Your task to perform on an android device: toggle location history Image 0: 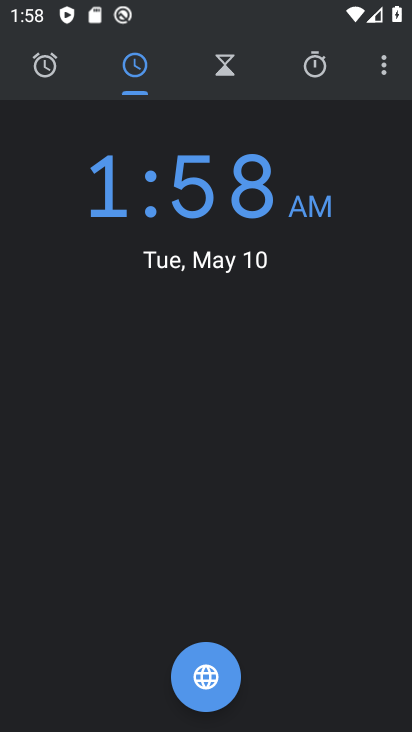
Step 0: press home button
Your task to perform on an android device: toggle location history Image 1: 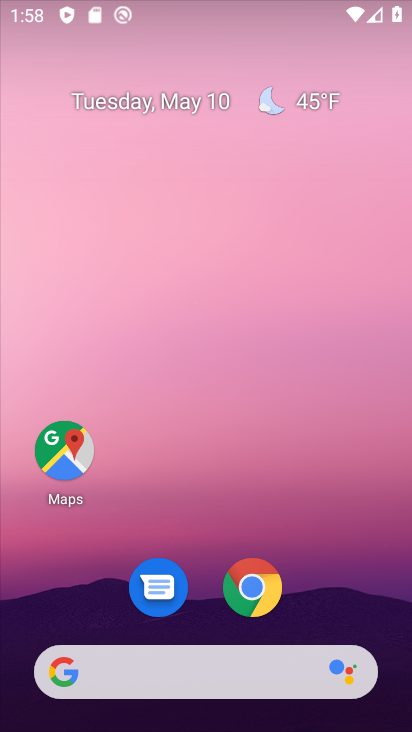
Step 1: drag from (304, 578) to (305, 206)
Your task to perform on an android device: toggle location history Image 2: 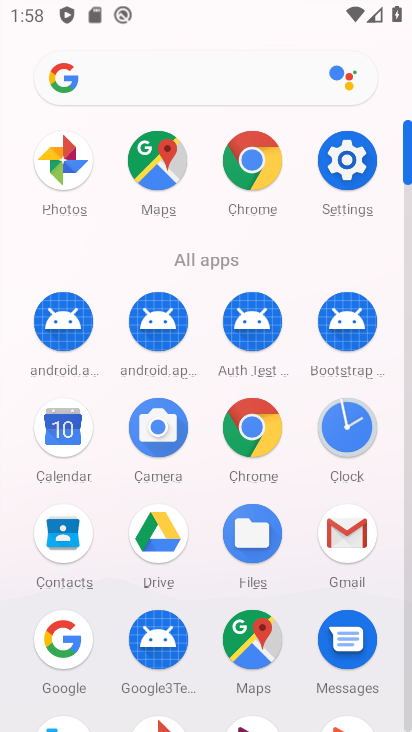
Step 2: click (345, 173)
Your task to perform on an android device: toggle location history Image 3: 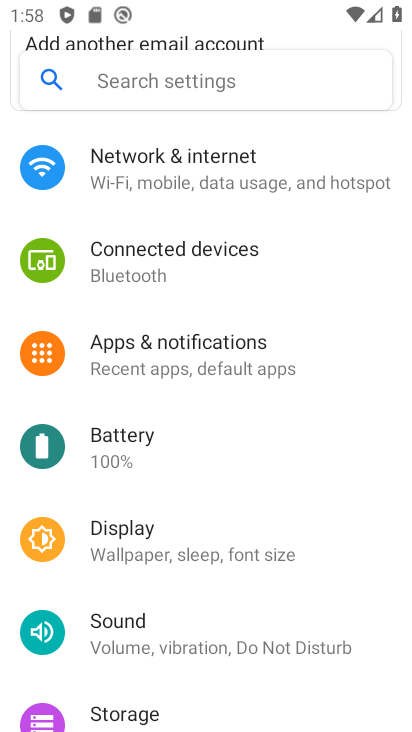
Step 3: drag from (224, 598) to (257, 267)
Your task to perform on an android device: toggle location history Image 4: 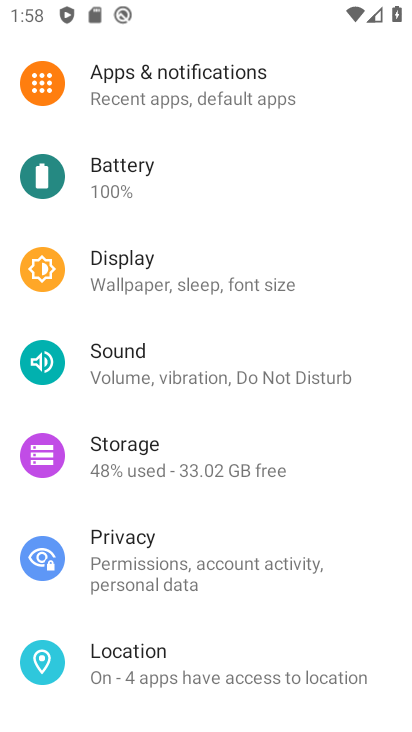
Step 4: click (165, 653)
Your task to perform on an android device: toggle location history Image 5: 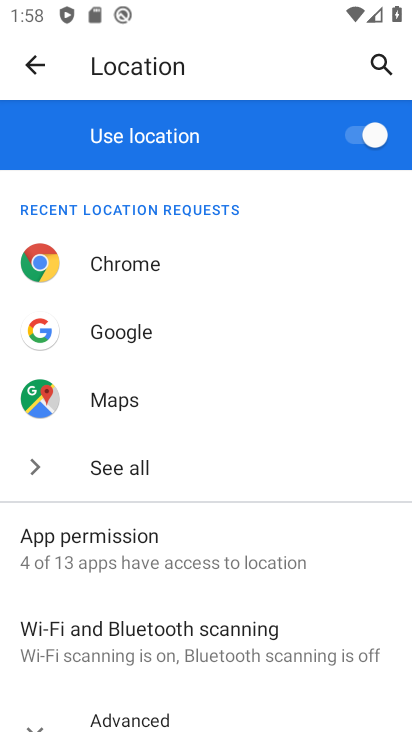
Step 5: drag from (229, 649) to (250, 327)
Your task to perform on an android device: toggle location history Image 6: 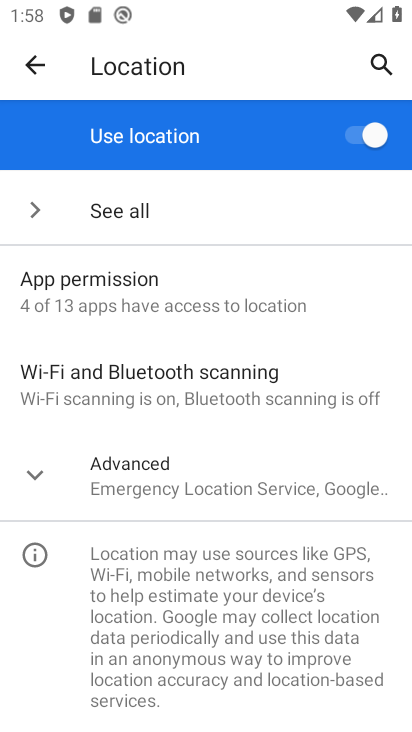
Step 6: click (198, 475)
Your task to perform on an android device: toggle location history Image 7: 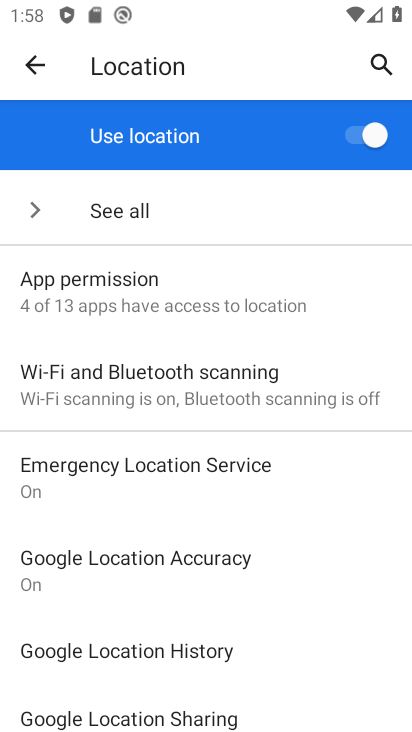
Step 7: click (148, 646)
Your task to perform on an android device: toggle location history Image 8: 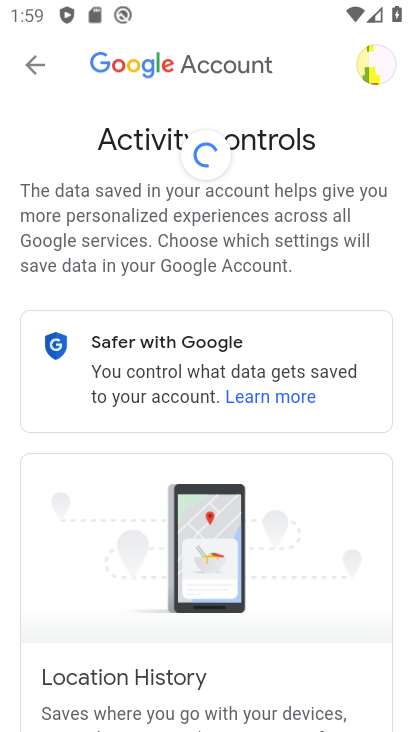
Step 8: drag from (260, 662) to (270, 318)
Your task to perform on an android device: toggle location history Image 9: 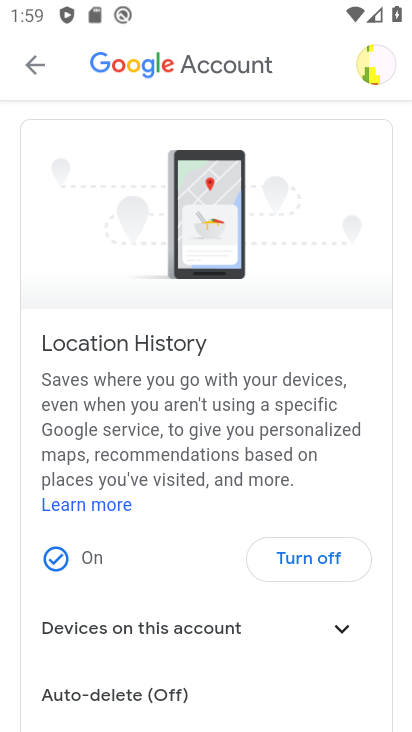
Step 9: click (298, 570)
Your task to perform on an android device: toggle location history Image 10: 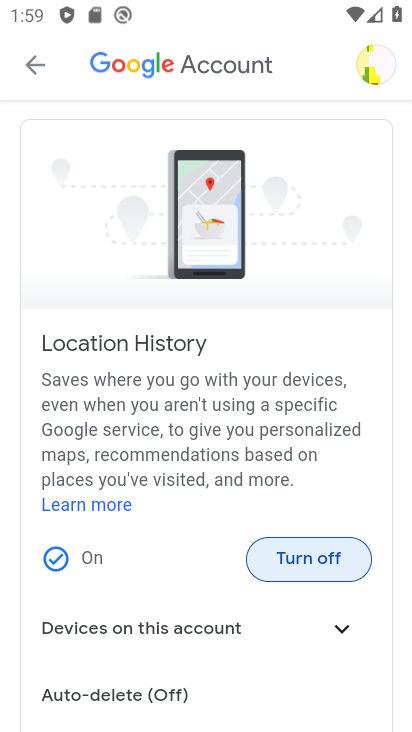
Step 10: click (286, 560)
Your task to perform on an android device: toggle location history Image 11: 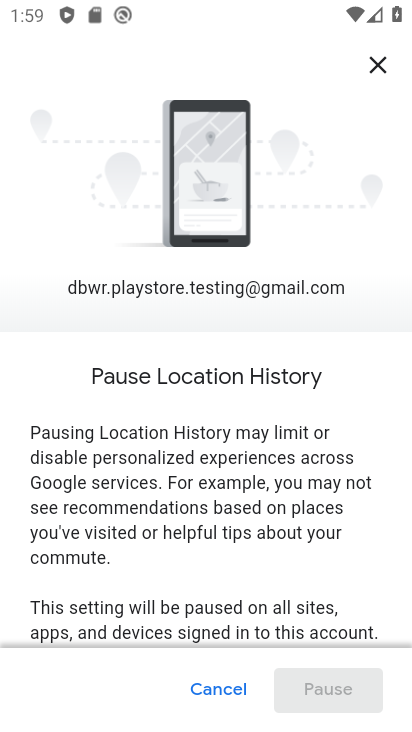
Step 11: drag from (312, 624) to (300, 313)
Your task to perform on an android device: toggle location history Image 12: 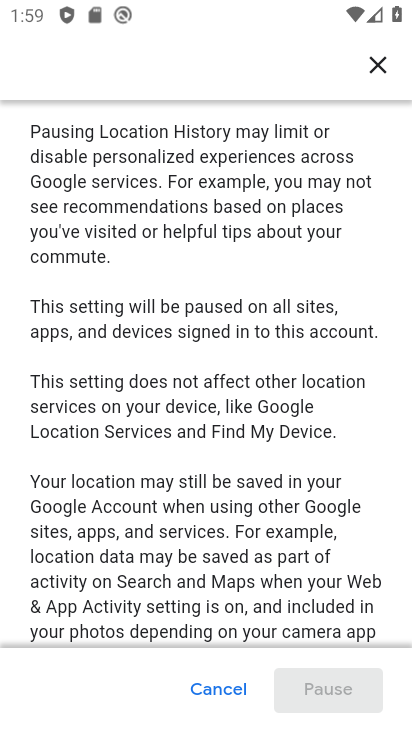
Step 12: drag from (297, 576) to (303, 166)
Your task to perform on an android device: toggle location history Image 13: 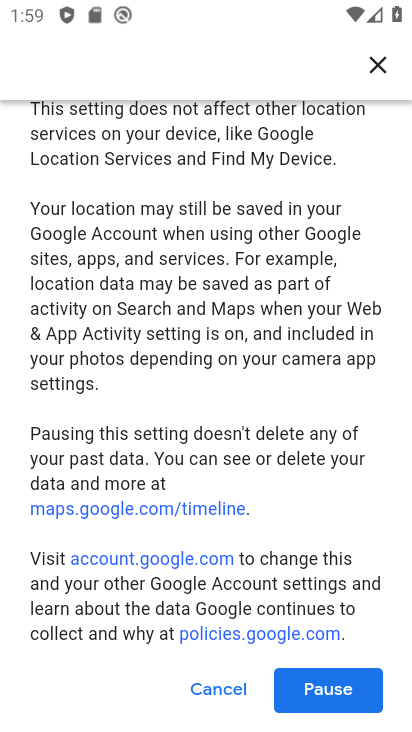
Step 13: click (313, 664)
Your task to perform on an android device: toggle location history Image 14: 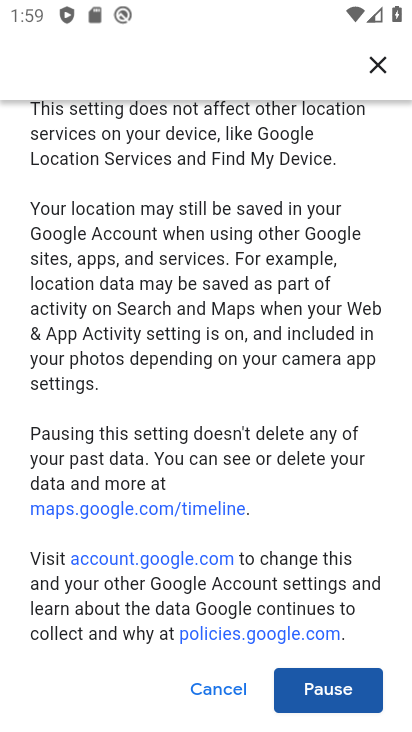
Step 14: click (327, 682)
Your task to perform on an android device: toggle location history Image 15: 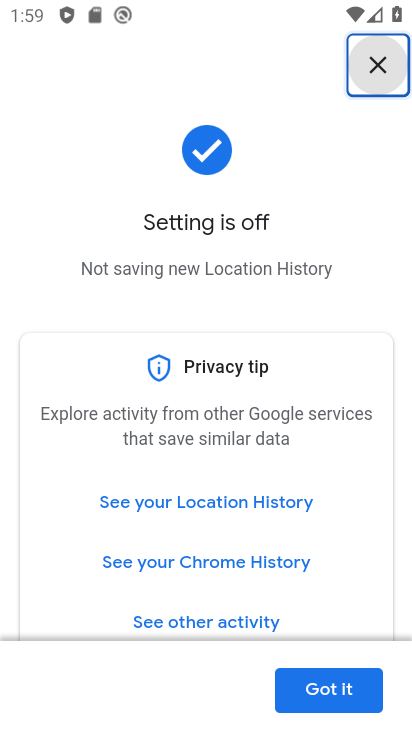
Step 15: click (327, 682)
Your task to perform on an android device: toggle location history Image 16: 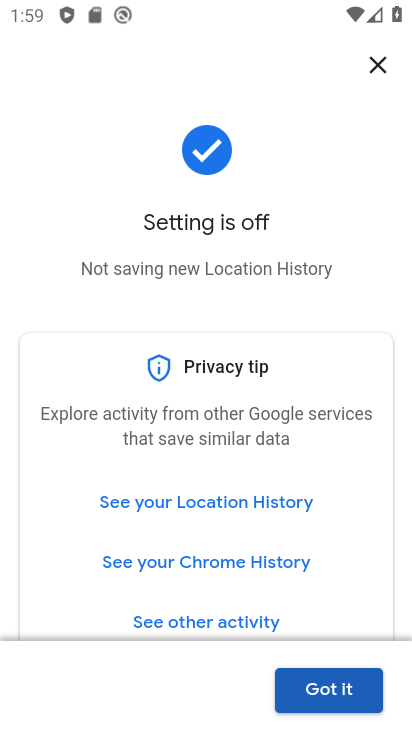
Step 16: task complete